Your task to perform on an android device: change notifications settings Image 0: 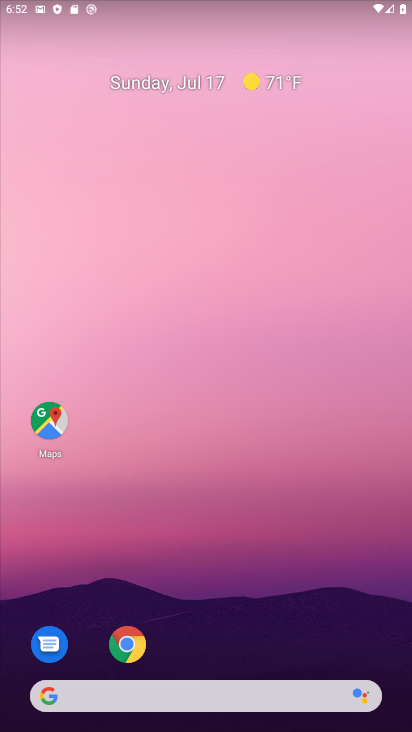
Step 0: drag from (177, 716) to (258, 292)
Your task to perform on an android device: change notifications settings Image 1: 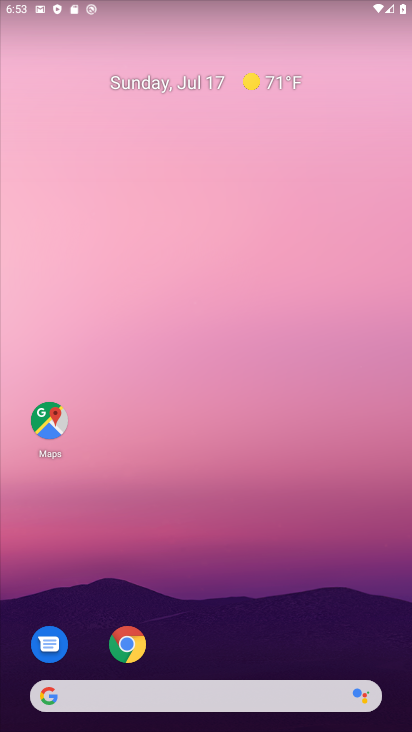
Step 1: drag from (190, 706) to (280, 86)
Your task to perform on an android device: change notifications settings Image 2: 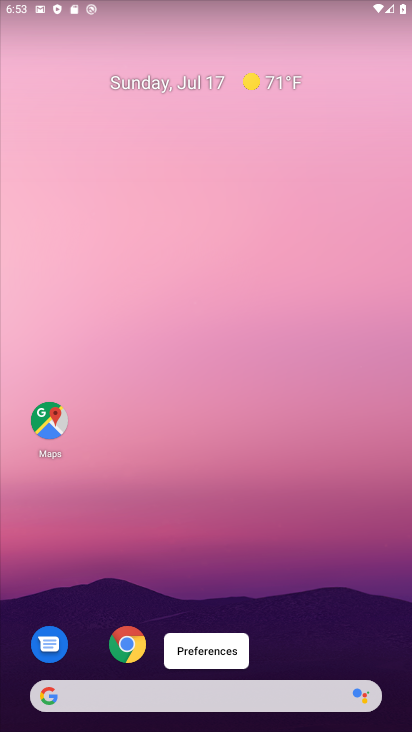
Step 2: drag from (220, 699) to (279, 138)
Your task to perform on an android device: change notifications settings Image 3: 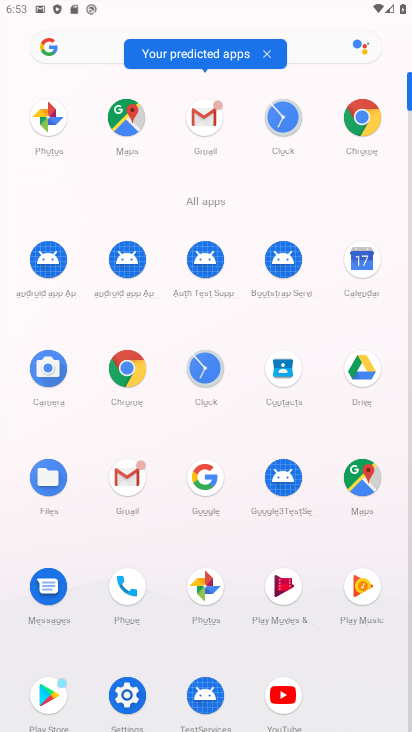
Step 3: drag from (127, 687) to (295, 638)
Your task to perform on an android device: change notifications settings Image 4: 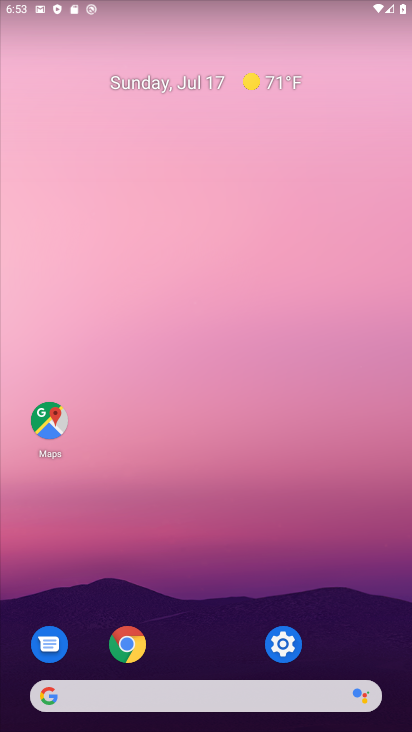
Step 4: click (280, 642)
Your task to perform on an android device: change notifications settings Image 5: 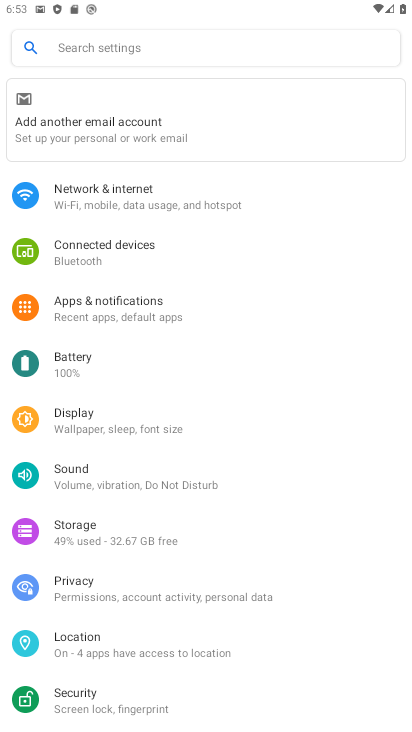
Step 5: click (125, 52)
Your task to perform on an android device: change notifications settings Image 6: 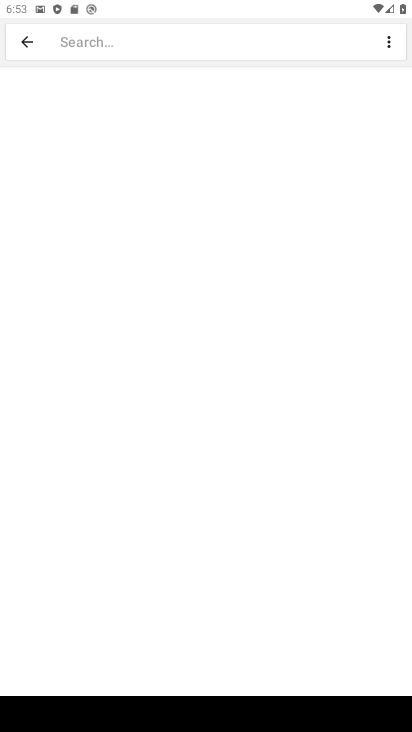
Step 6: drag from (346, 709) to (344, 584)
Your task to perform on an android device: change notifications settings Image 7: 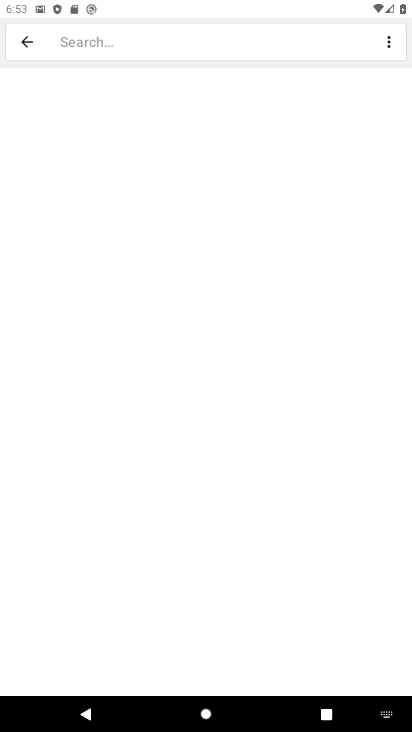
Step 7: click (392, 715)
Your task to perform on an android device: change notifications settings Image 8: 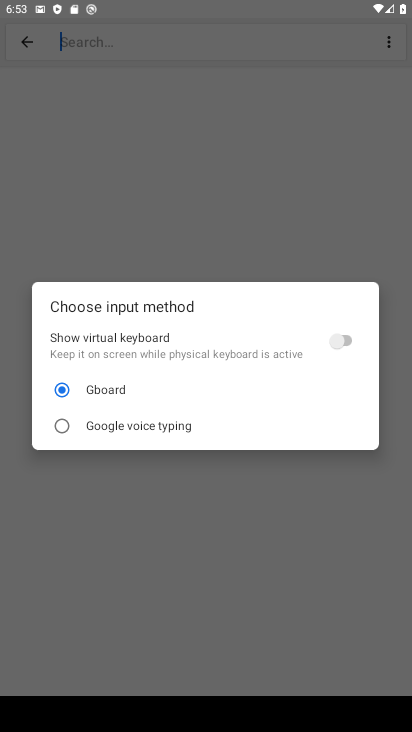
Step 8: click (343, 335)
Your task to perform on an android device: change notifications settings Image 9: 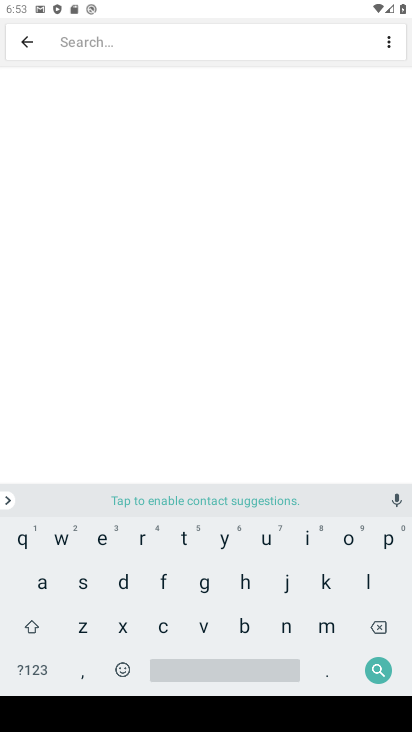
Step 9: click (279, 626)
Your task to perform on an android device: change notifications settings Image 10: 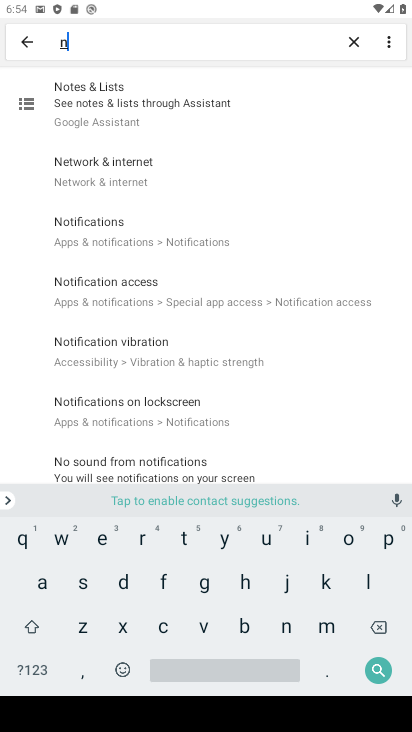
Step 10: click (342, 539)
Your task to perform on an android device: change notifications settings Image 11: 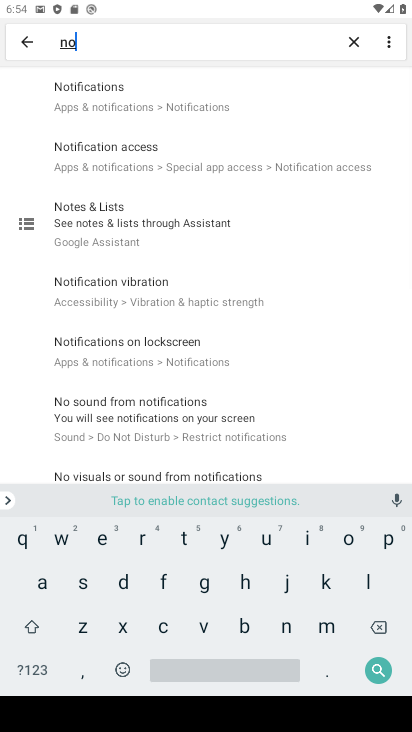
Step 11: click (77, 104)
Your task to perform on an android device: change notifications settings Image 12: 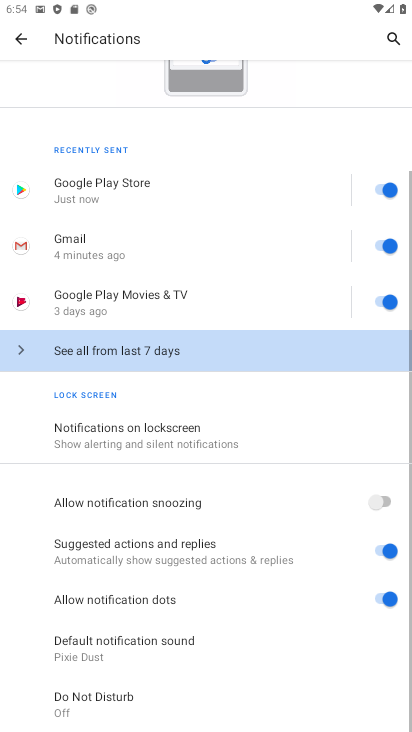
Step 12: click (128, 442)
Your task to perform on an android device: change notifications settings Image 13: 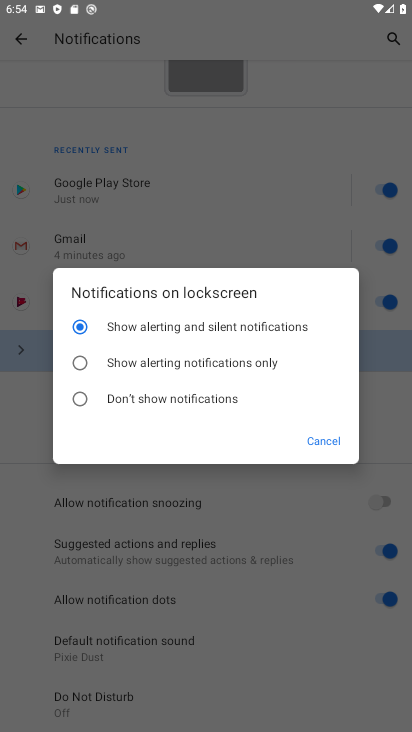
Step 13: click (122, 357)
Your task to perform on an android device: change notifications settings Image 14: 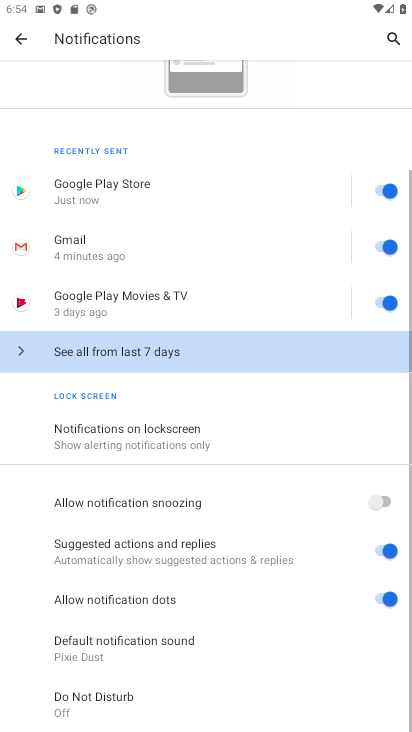
Step 14: task complete